Your task to perform on an android device: change notifications settings Image 0: 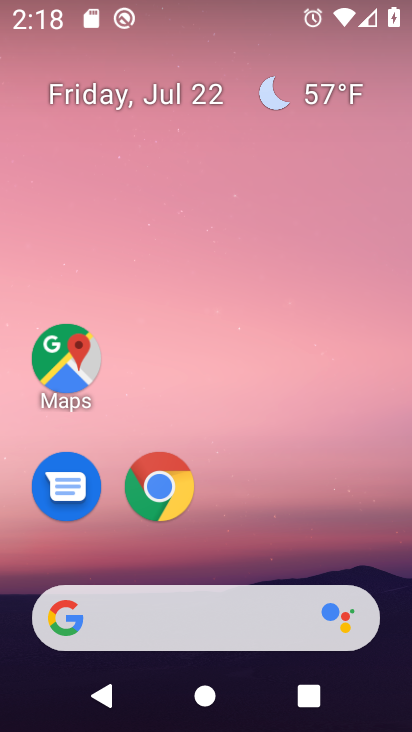
Step 0: drag from (328, 518) to (353, 183)
Your task to perform on an android device: change notifications settings Image 1: 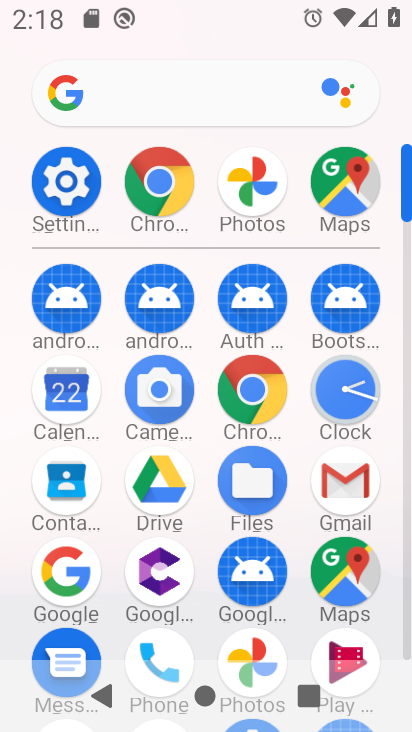
Step 1: click (74, 187)
Your task to perform on an android device: change notifications settings Image 2: 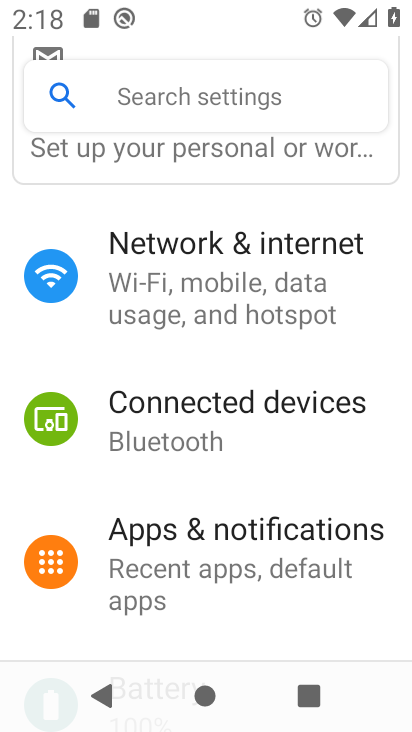
Step 2: drag from (383, 258) to (387, 362)
Your task to perform on an android device: change notifications settings Image 3: 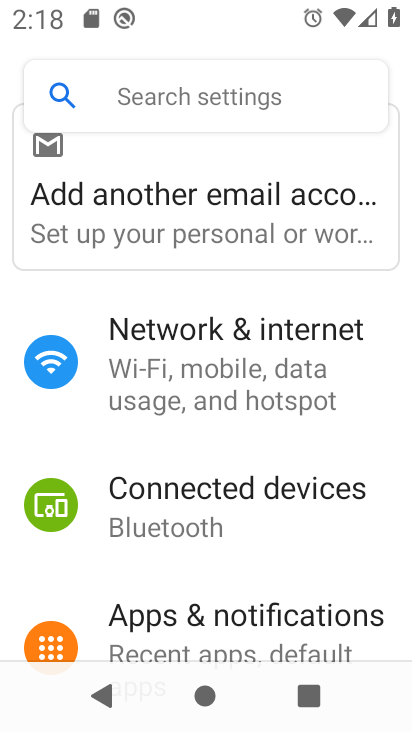
Step 3: drag from (375, 283) to (379, 477)
Your task to perform on an android device: change notifications settings Image 4: 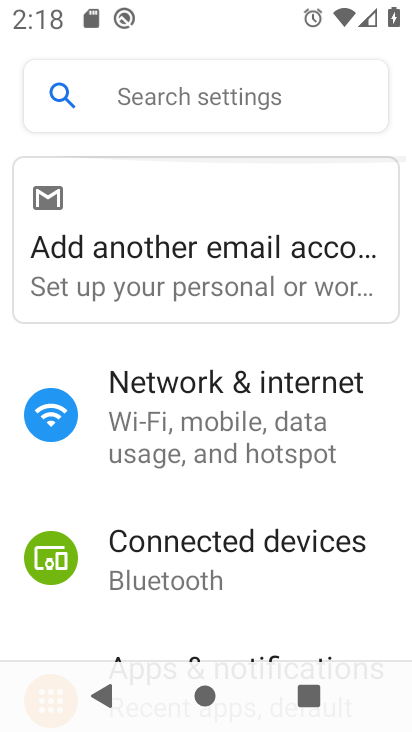
Step 4: drag from (364, 522) to (358, 444)
Your task to perform on an android device: change notifications settings Image 5: 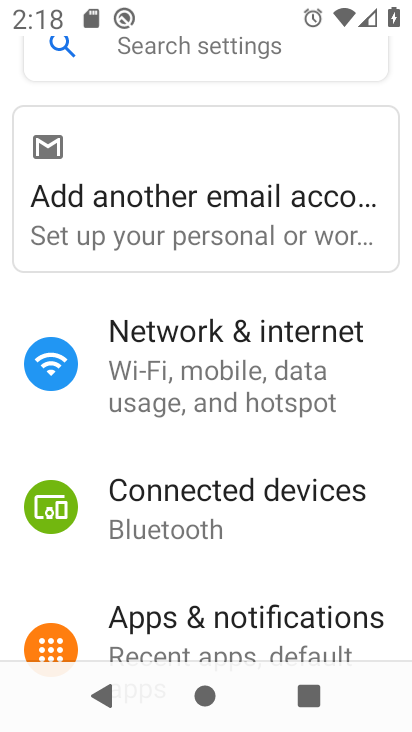
Step 5: drag from (347, 531) to (350, 449)
Your task to perform on an android device: change notifications settings Image 6: 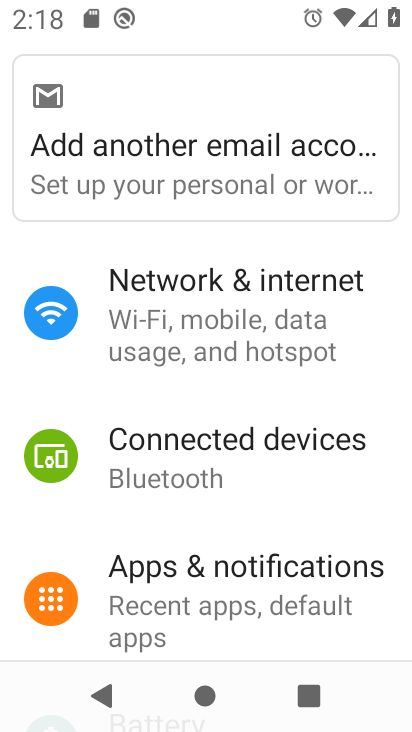
Step 6: drag from (341, 568) to (344, 482)
Your task to perform on an android device: change notifications settings Image 7: 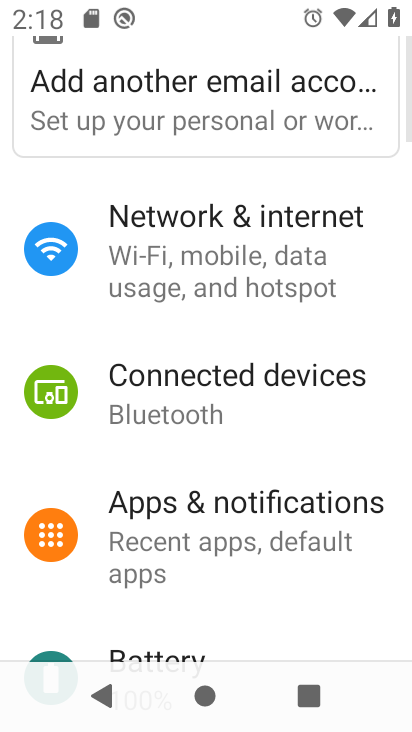
Step 7: drag from (343, 588) to (345, 483)
Your task to perform on an android device: change notifications settings Image 8: 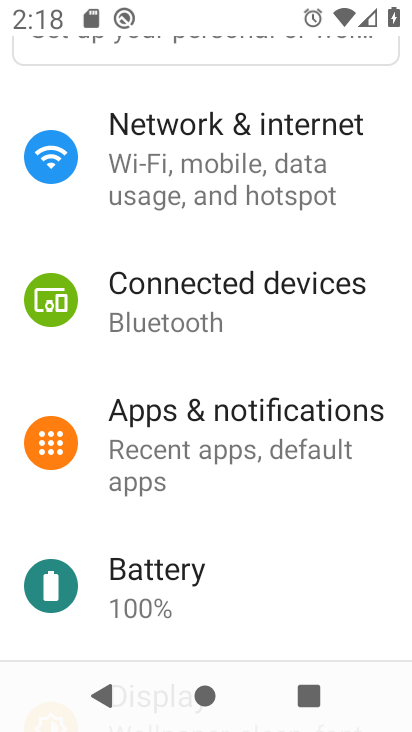
Step 8: click (333, 445)
Your task to perform on an android device: change notifications settings Image 9: 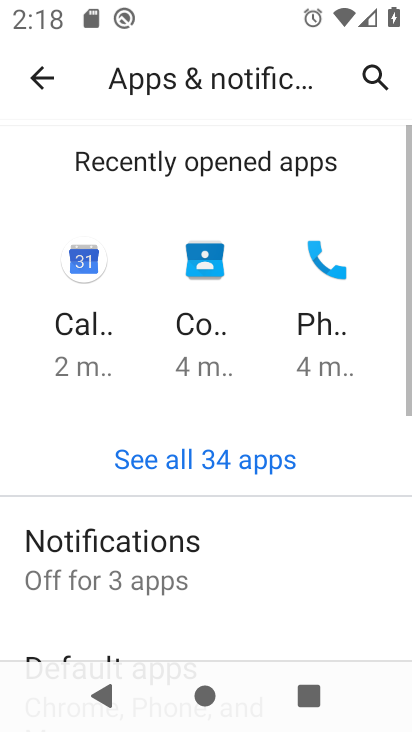
Step 9: drag from (326, 538) to (337, 466)
Your task to perform on an android device: change notifications settings Image 10: 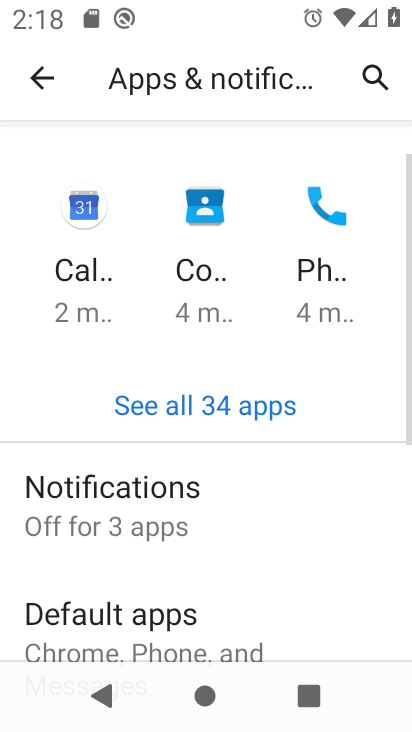
Step 10: drag from (336, 551) to (333, 438)
Your task to perform on an android device: change notifications settings Image 11: 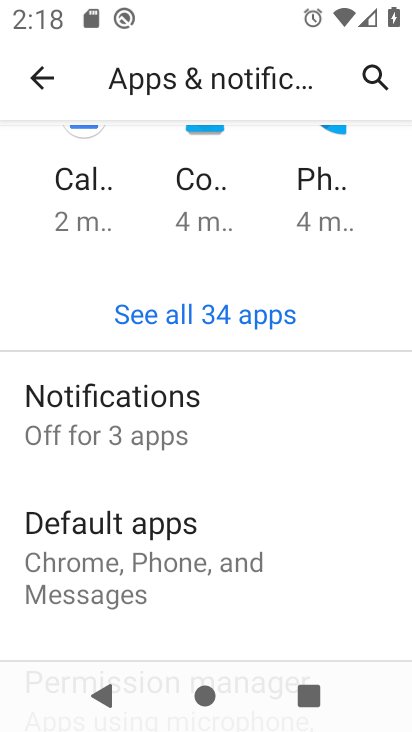
Step 11: click (242, 438)
Your task to perform on an android device: change notifications settings Image 12: 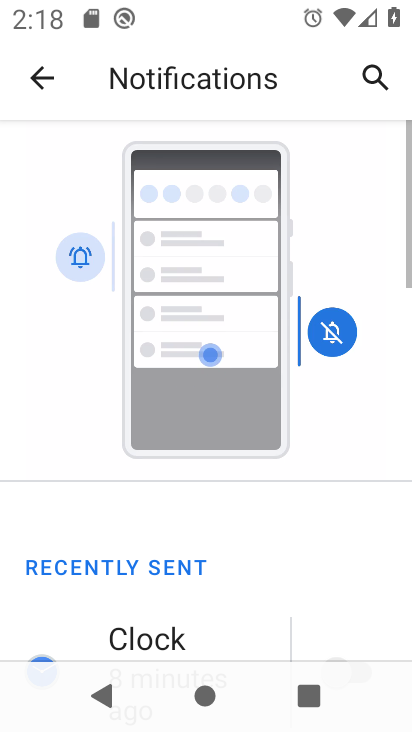
Step 12: drag from (322, 519) to (322, 460)
Your task to perform on an android device: change notifications settings Image 13: 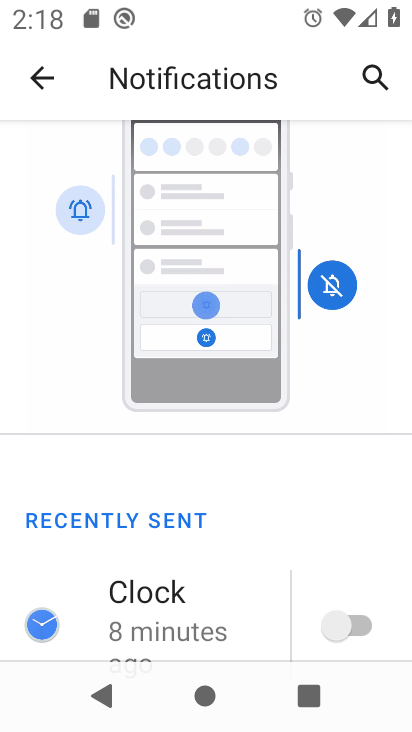
Step 13: drag from (314, 542) to (311, 440)
Your task to perform on an android device: change notifications settings Image 14: 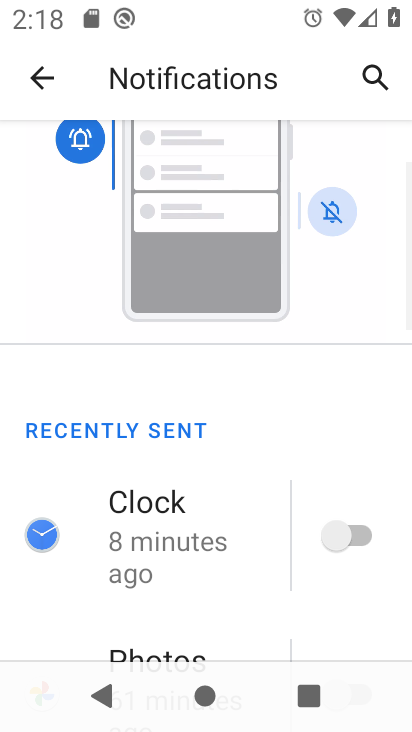
Step 14: drag from (264, 572) to (264, 477)
Your task to perform on an android device: change notifications settings Image 15: 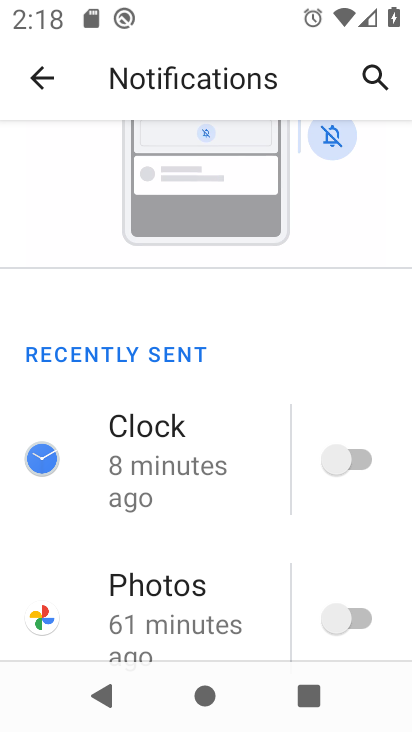
Step 15: drag from (257, 587) to (257, 460)
Your task to perform on an android device: change notifications settings Image 16: 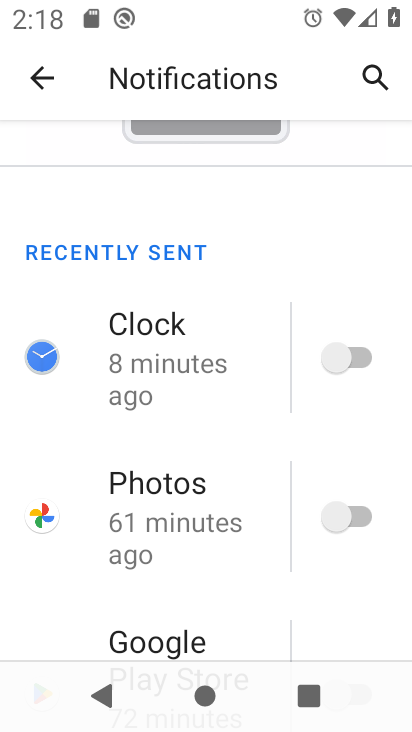
Step 16: drag from (248, 606) to (248, 465)
Your task to perform on an android device: change notifications settings Image 17: 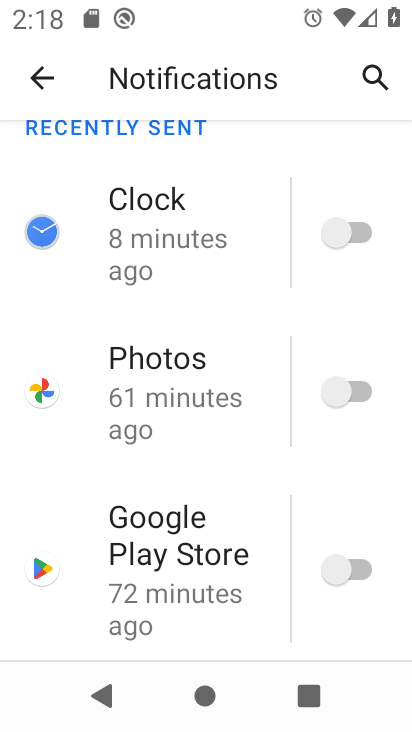
Step 17: click (335, 234)
Your task to perform on an android device: change notifications settings Image 18: 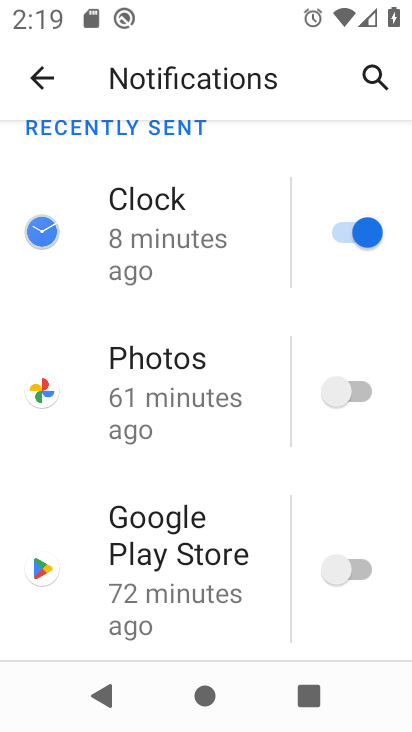
Step 18: click (338, 380)
Your task to perform on an android device: change notifications settings Image 19: 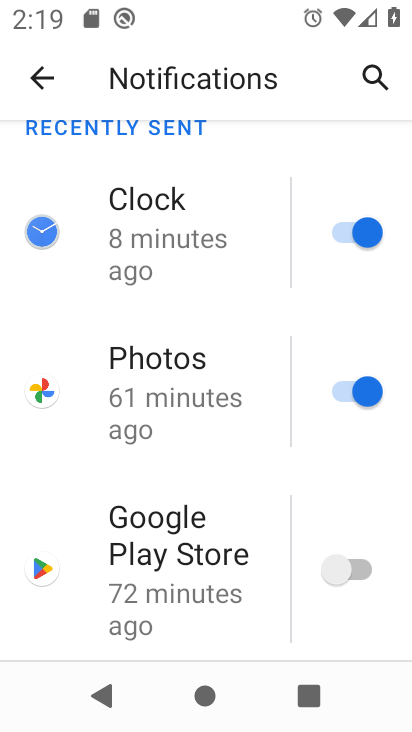
Step 19: click (337, 566)
Your task to perform on an android device: change notifications settings Image 20: 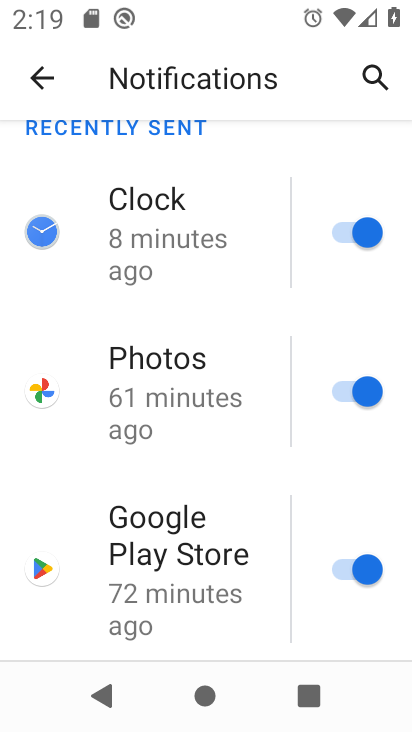
Step 20: task complete